Your task to perform on an android device: Go to Google maps Image 0: 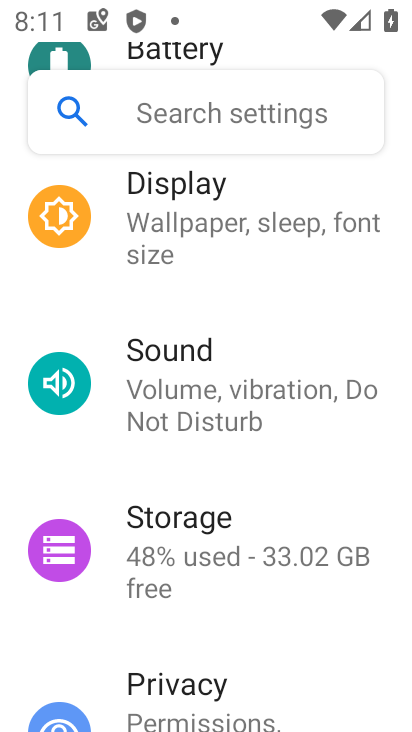
Step 0: press home button
Your task to perform on an android device: Go to Google maps Image 1: 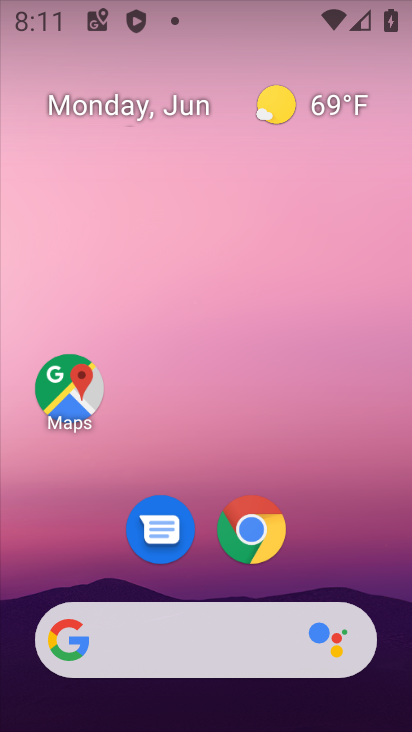
Step 1: click (60, 389)
Your task to perform on an android device: Go to Google maps Image 2: 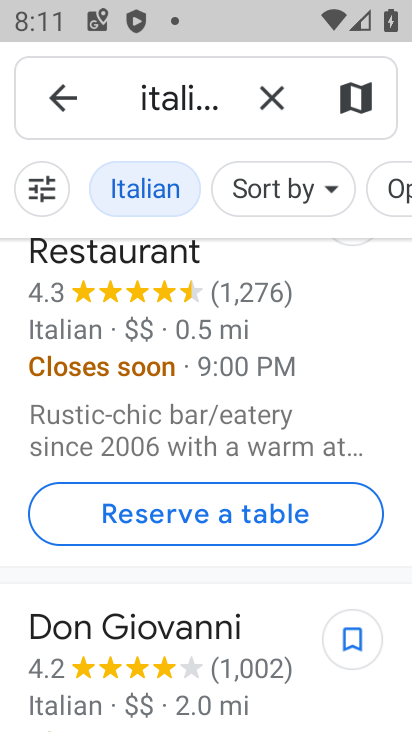
Step 2: task complete